Your task to perform on an android device: Add razer blade to the cart on costco Image 0: 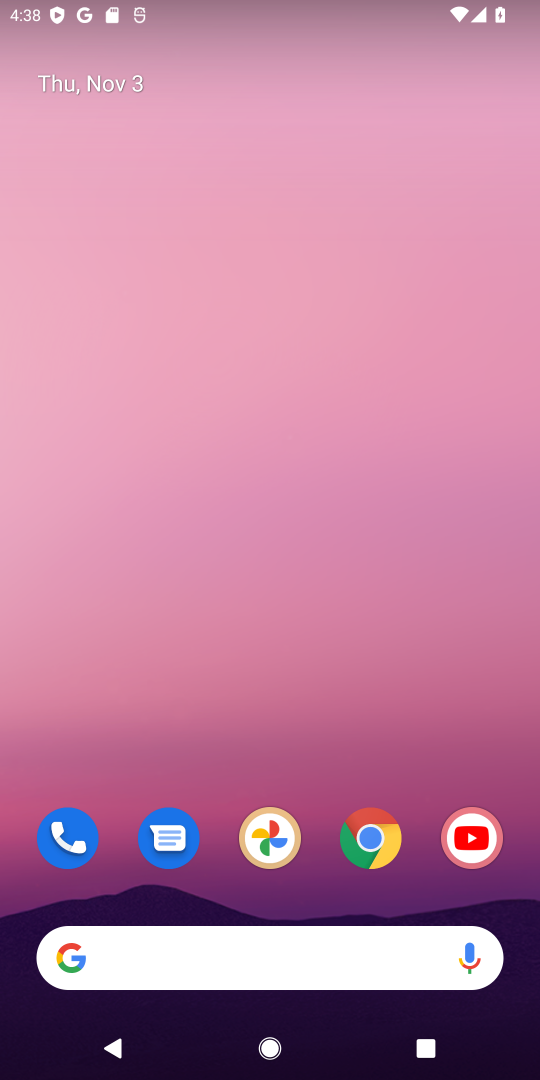
Step 0: click (81, 960)
Your task to perform on an android device: Add razer blade to the cart on costco Image 1: 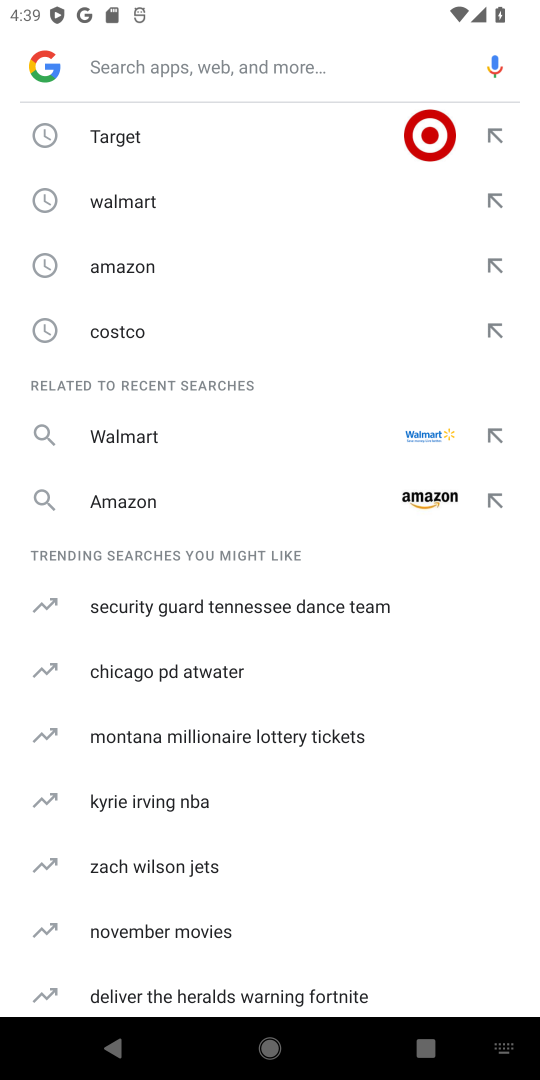
Step 1: click (123, 331)
Your task to perform on an android device: Add razer blade to the cart on costco Image 2: 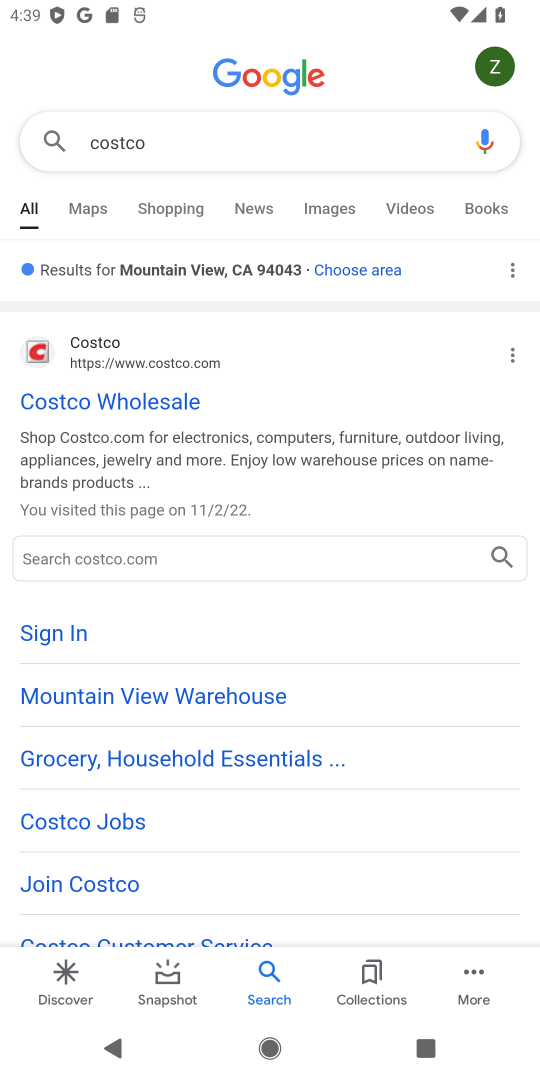
Step 2: click (174, 406)
Your task to perform on an android device: Add razer blade to the cart on costco Image 3: 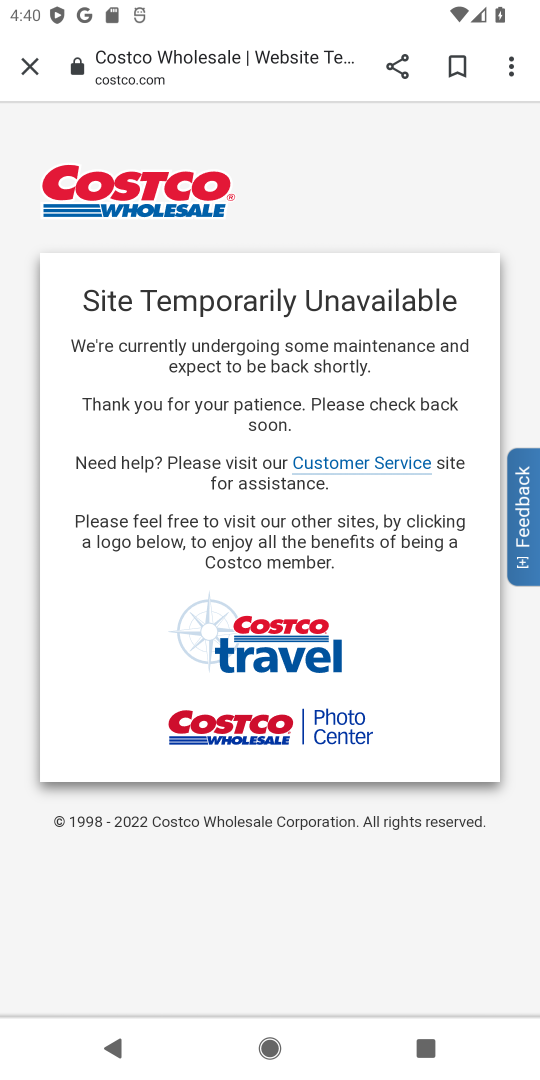
Step 3: task complete